Your task to perform on an android device: Go to Wikipedia Image 0: 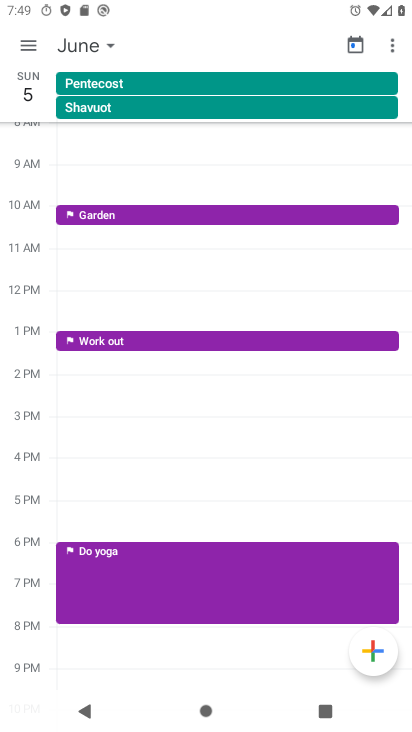
Step 0: press home button
Your task to perform on an android device: Go to Wikipedia Image 1: 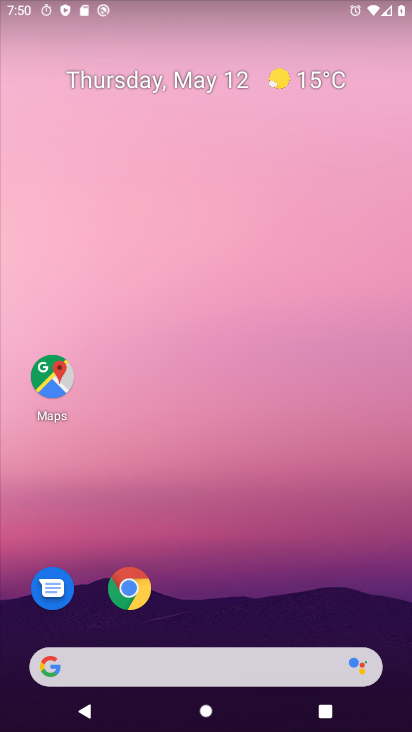
Step 1: click (126, 581)
Your task to perform on an android device: Go to Wikipedia Image 2: 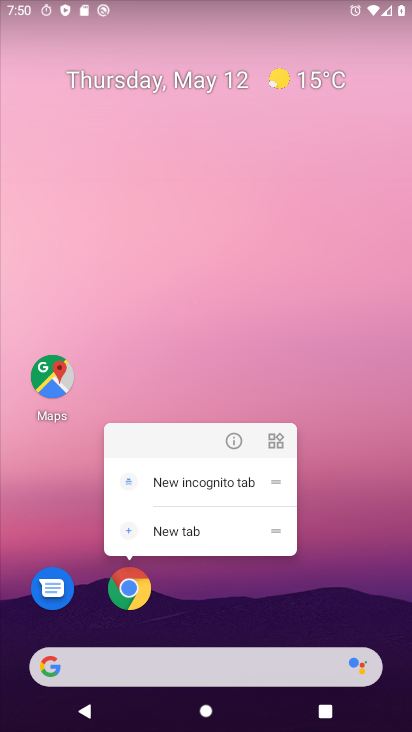
Step 2: click (120, 582)
Your task to perform on an android device: Go to Wikipedia Image 3: 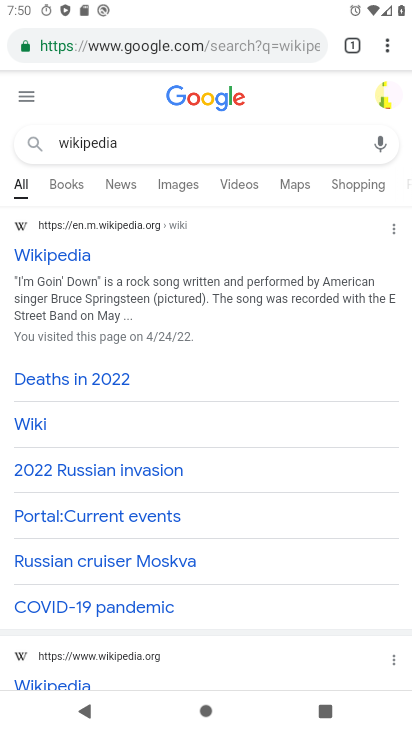
Step 3: click (268, 346)
Your task to perform on an android device: Go to Wikipedia Image 4: 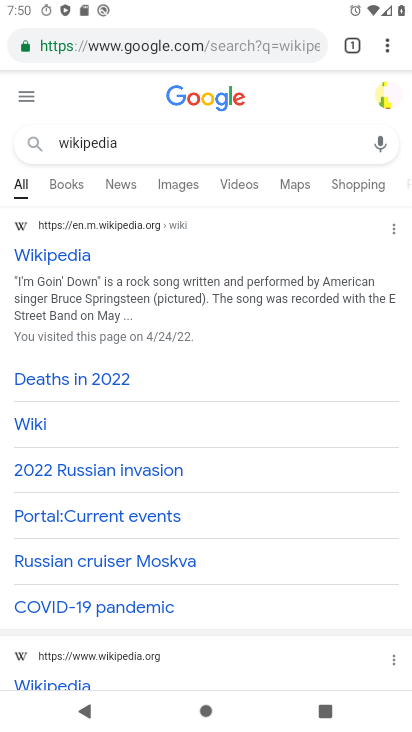
Step 4: task complete